Your task to perform on an android device: install app "ZOOM Cloud Meetings" Image 0: 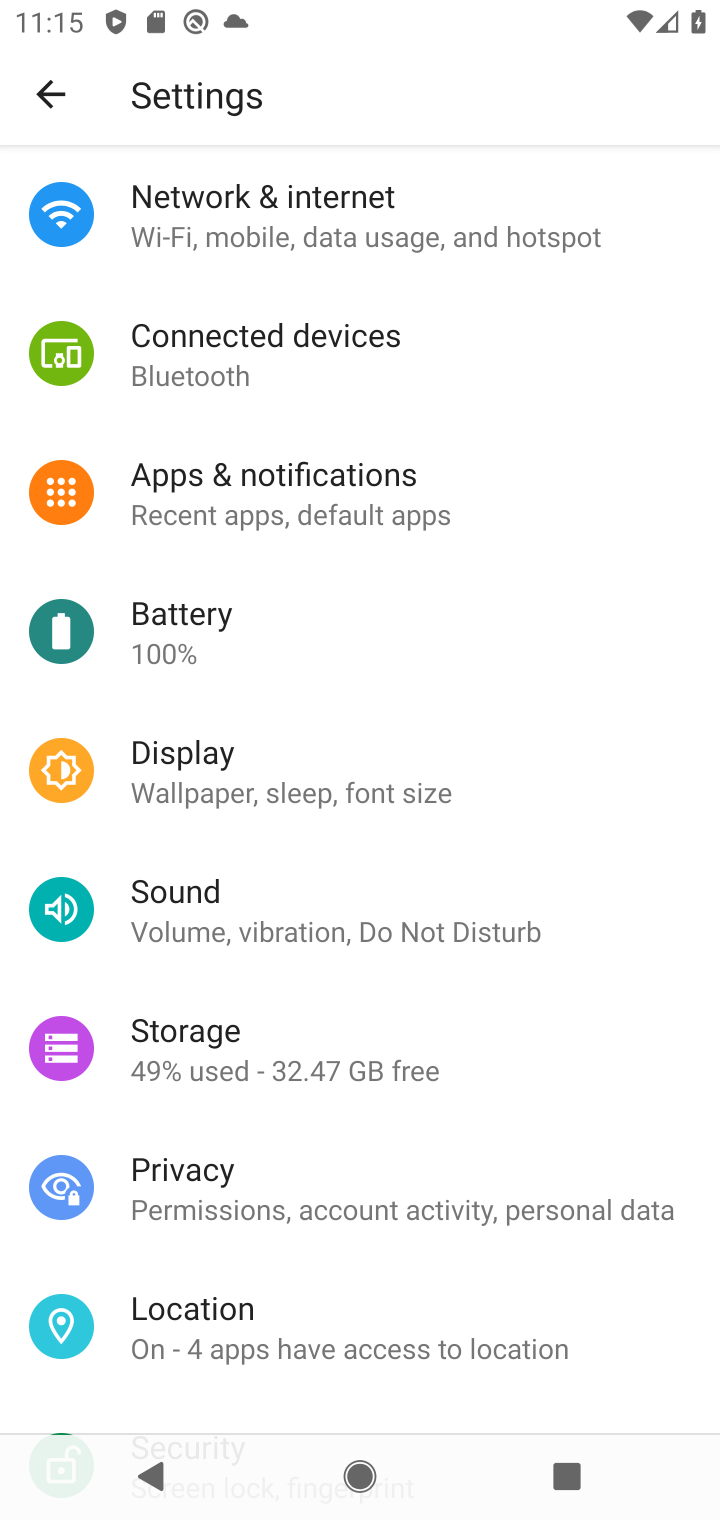
Step 0: press home button
Your task to perform on an android device: install app "ZOOM Cloud Meetings" Image 1: 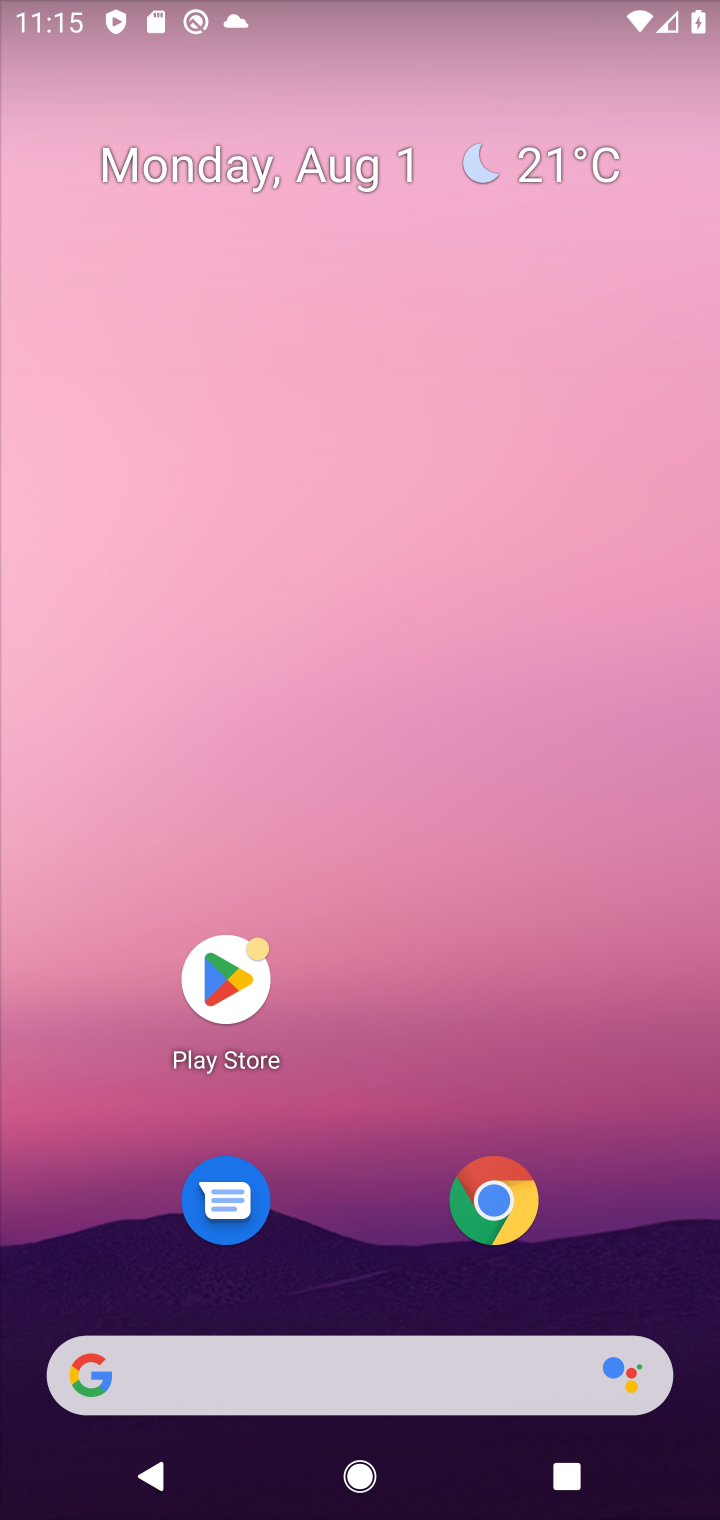
Step 1: click (234, 976)
Your task to perform on an android device: install app "ZOOM Cloud Meetings" Image 2: 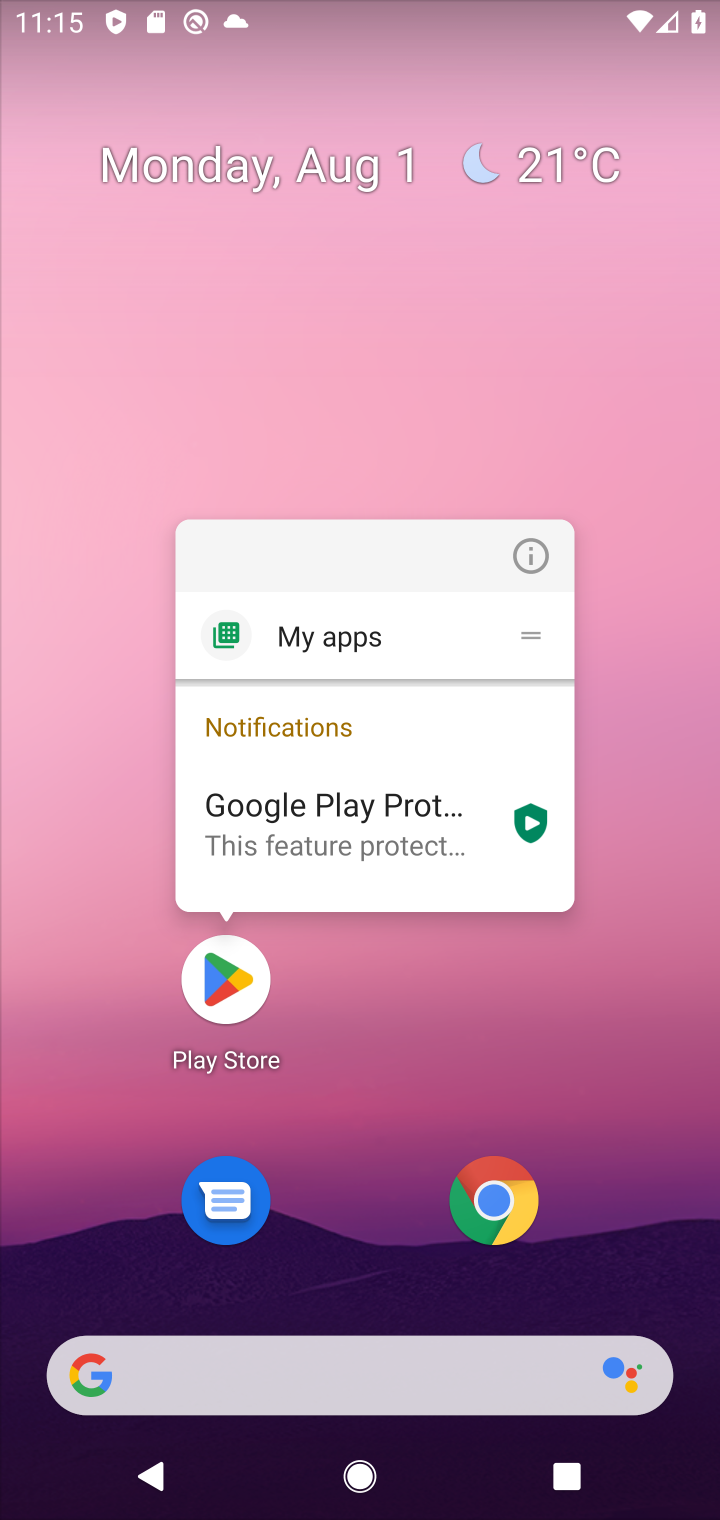
Step 2: click (232, 997)
Your task to perform on an android device: install app "ZOOM Cloud Meetings" Image 3: 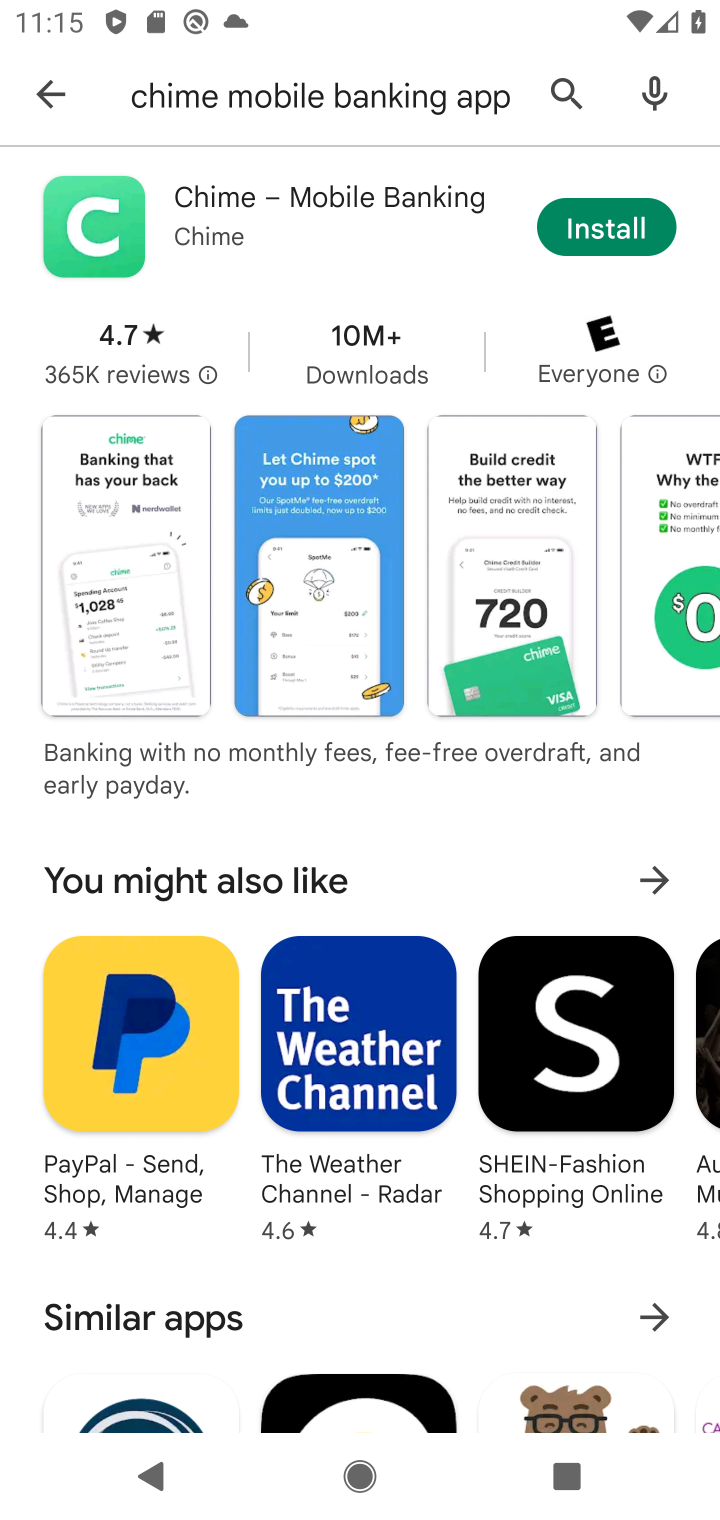
Step 3: click (566, 84)
Your task to perform on an android device: install app "ZOOM Cloud Meetings" Image 4: 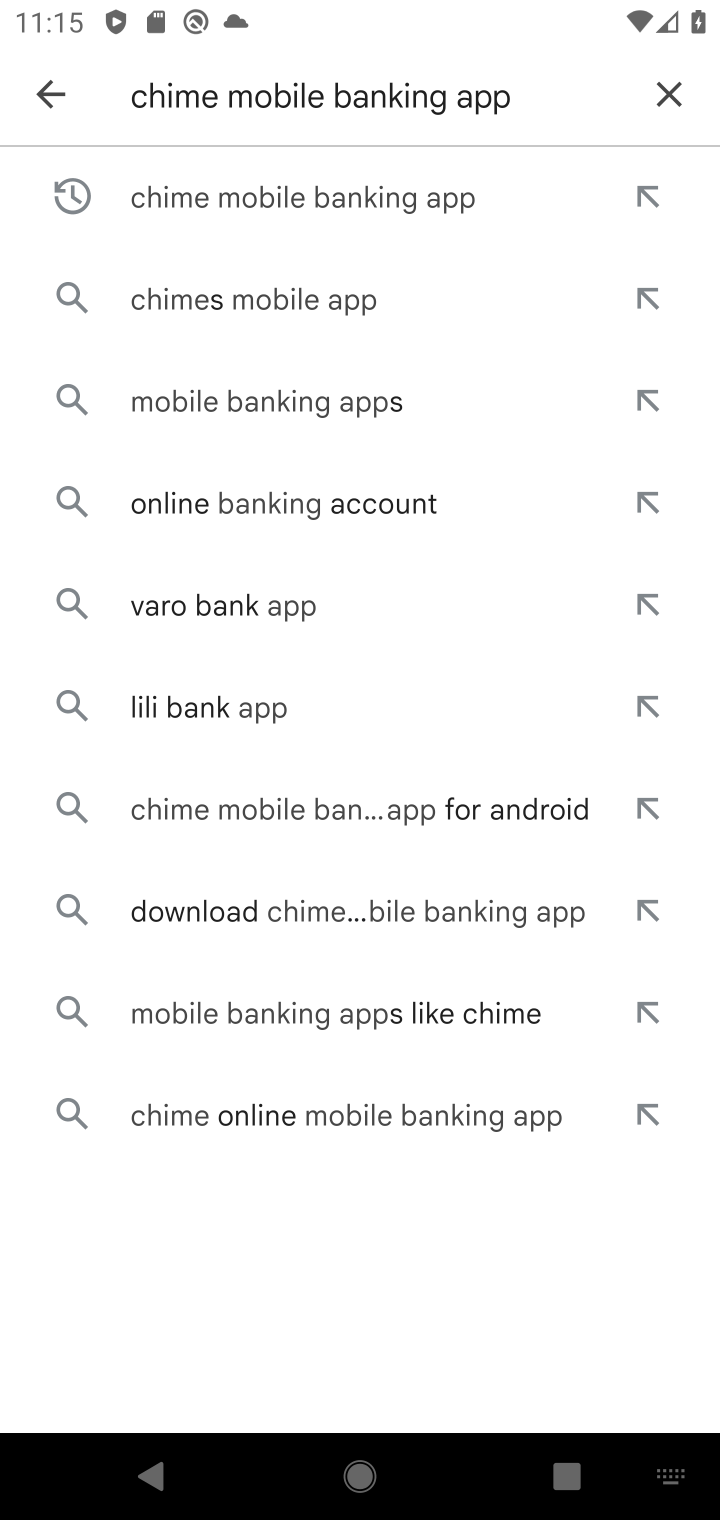
Step 4: click (678, 92)
Your task to perform on an android device: install app "ZOOM Cloud Meetings" Image 5: 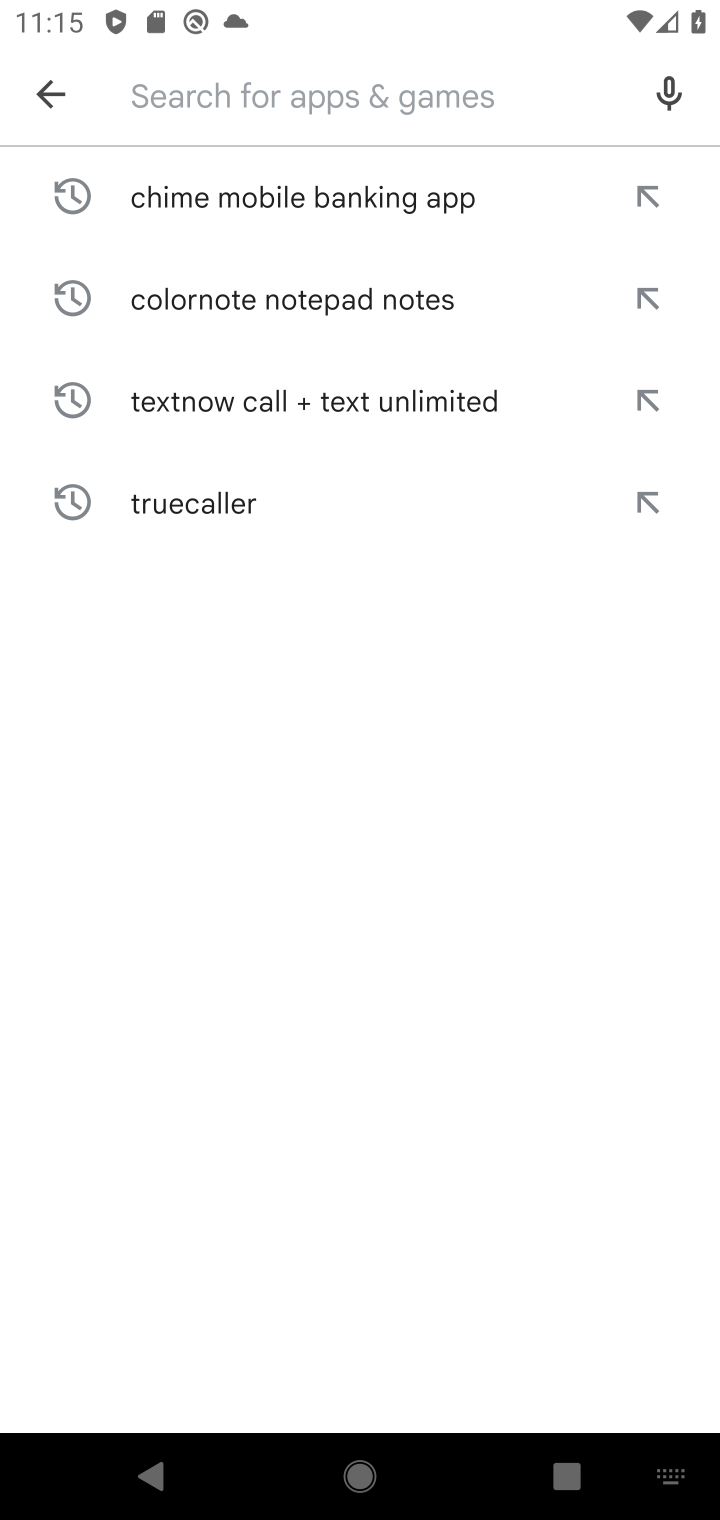
Step 5: type "ZOOM Cloud Meetings"
Your task to perform on an android device: install app "ZOOM Cloud Meetings" Image 6: 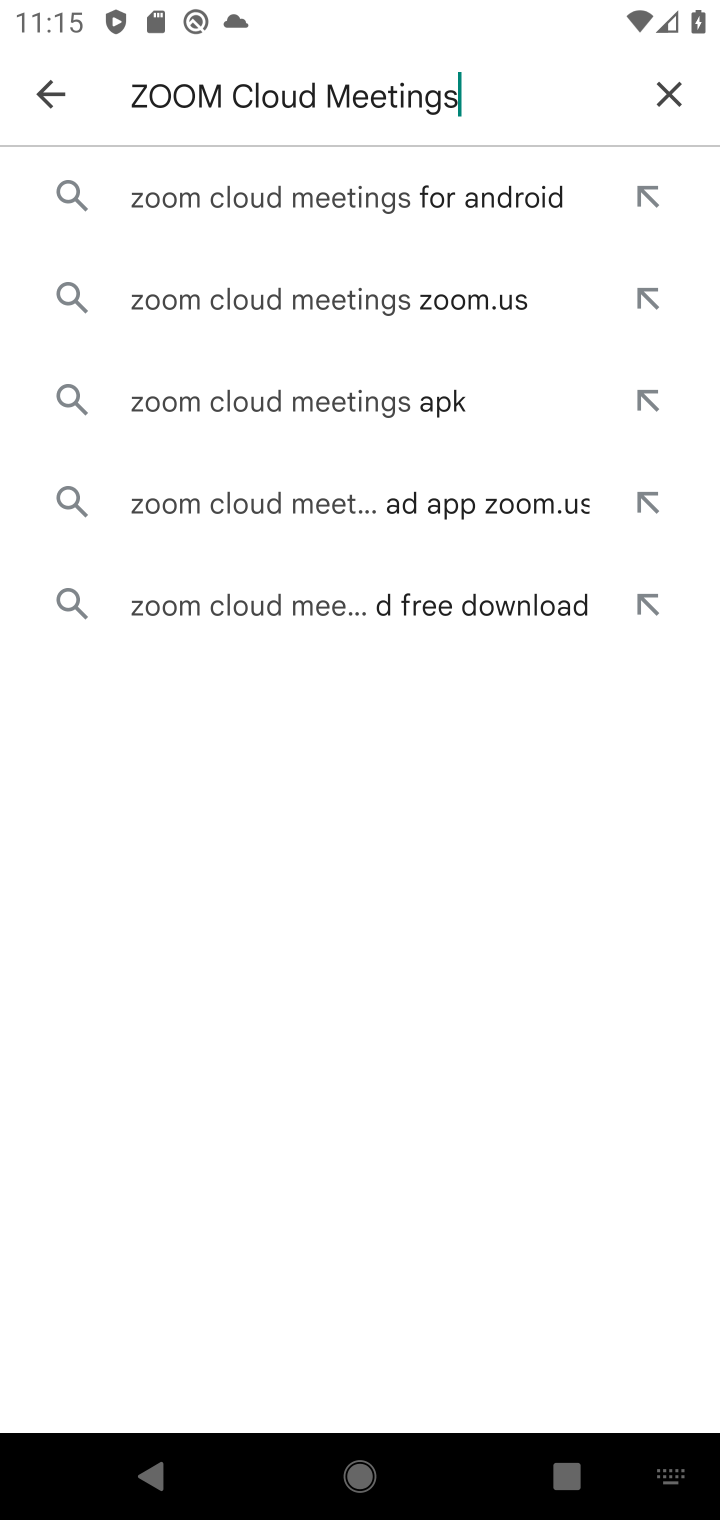
Step 6: click (257, 203)
Your task to perform on an android device: install app "ZOOM Cloud Meetings" Image 7: 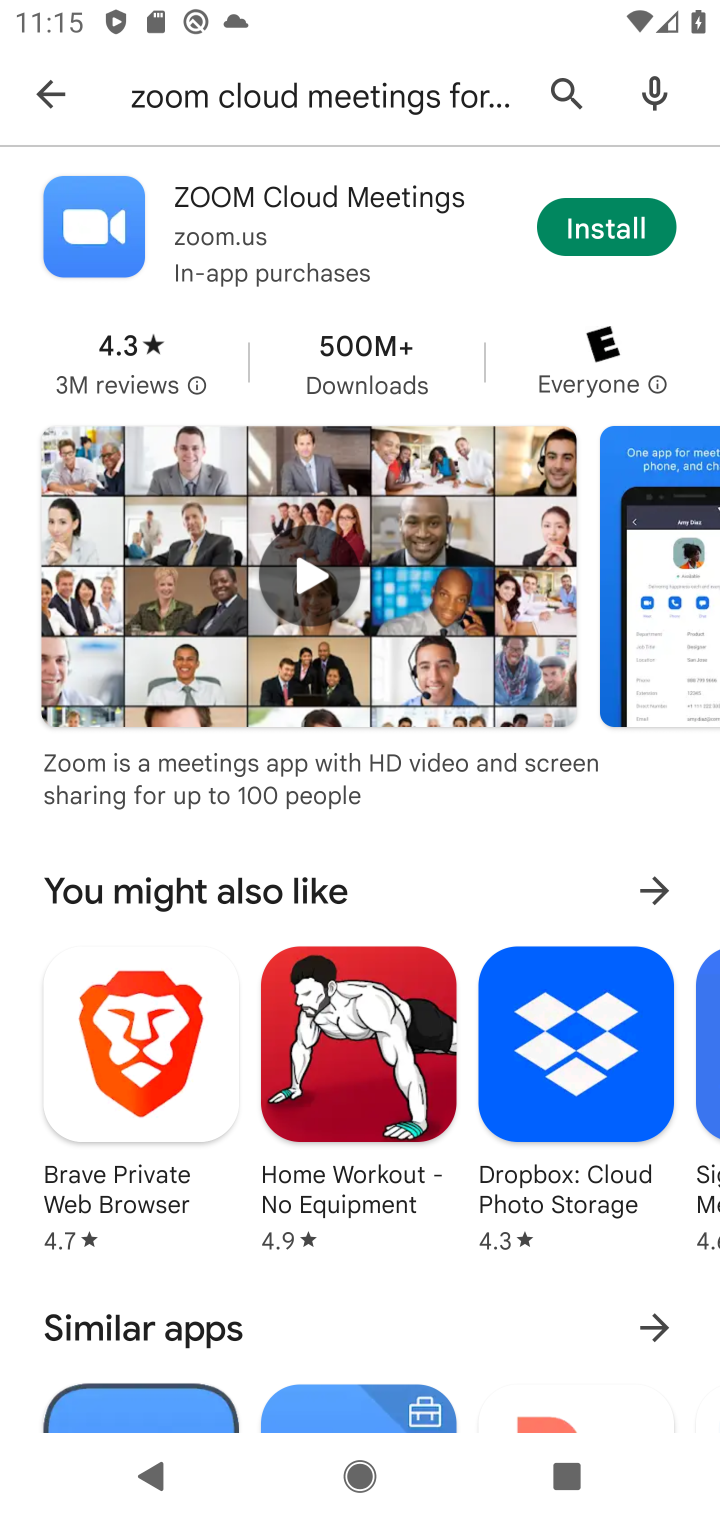
Step 7: click (619, 236)
Your task to perform on an android device: install app "ZOOM Cloud Meetings" Image 8: 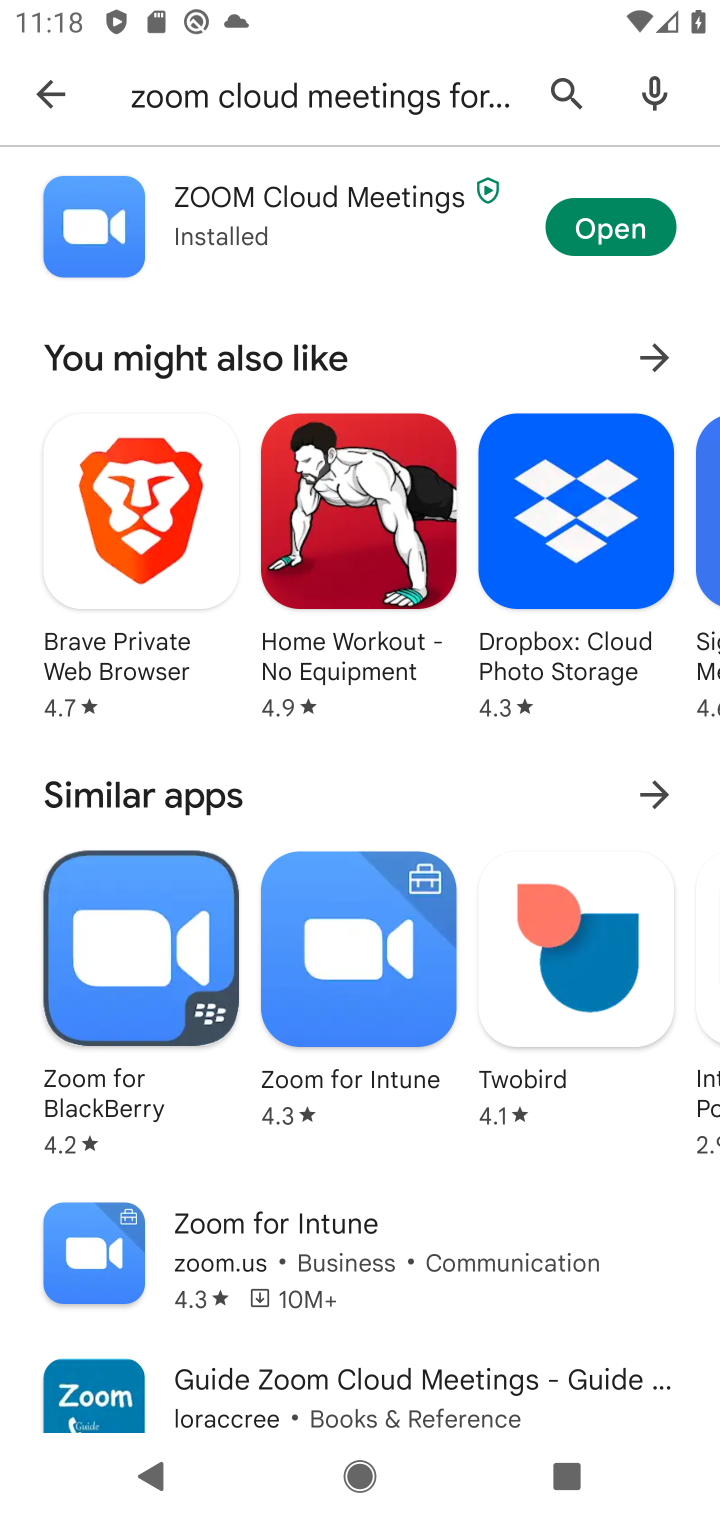
Step 8: task complete